Your task to perform on an android device: set the timer Image 0: 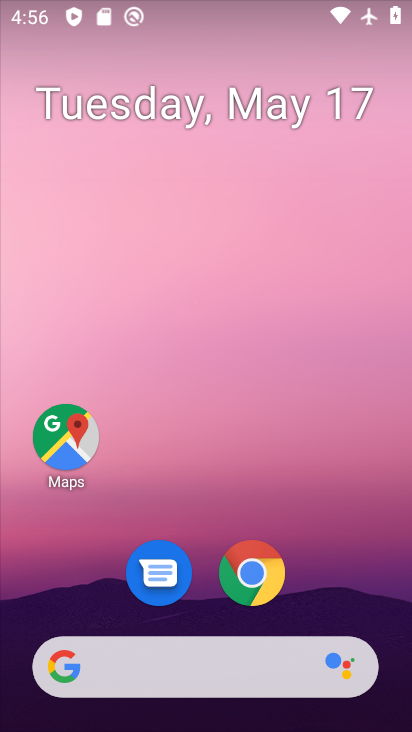
Step 0: drag from (366, 653) to (217, 181)
Your task to perform on an android device: set the timer Image 1: 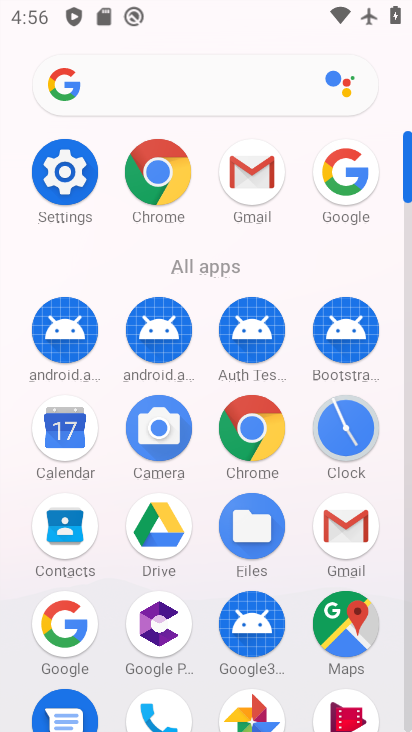
Step 1: click (338, 446)
Your task to perform on an android device: set the timer Image 2: 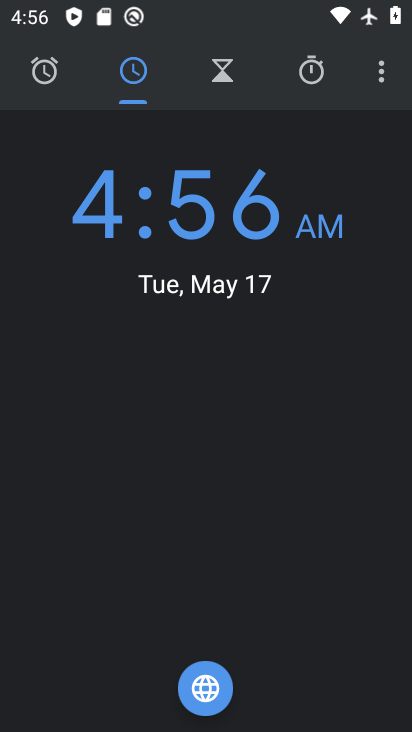
Step 2: click (226, 74)
Your task to perform on an android device: set the timer Image 3: 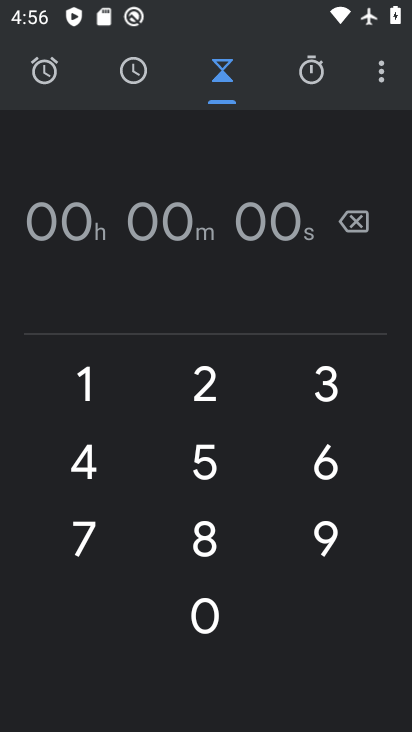
Step 3: click (200, 539)
Your task to perform on an android device: set the timer Image 4: 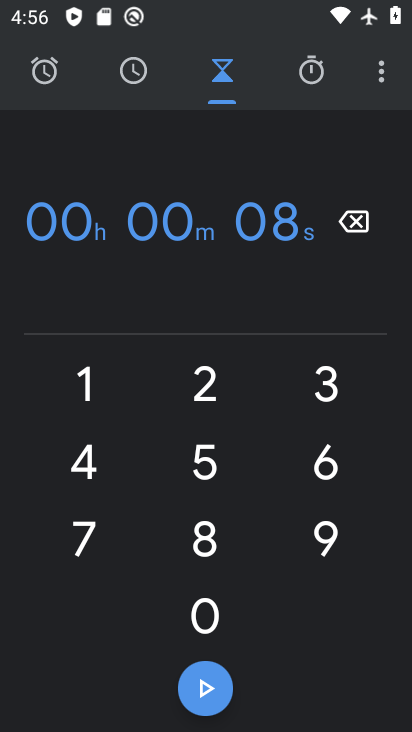
Step 4: click (203, 685)
Your task to perform on an android device: set the timer Image 5: 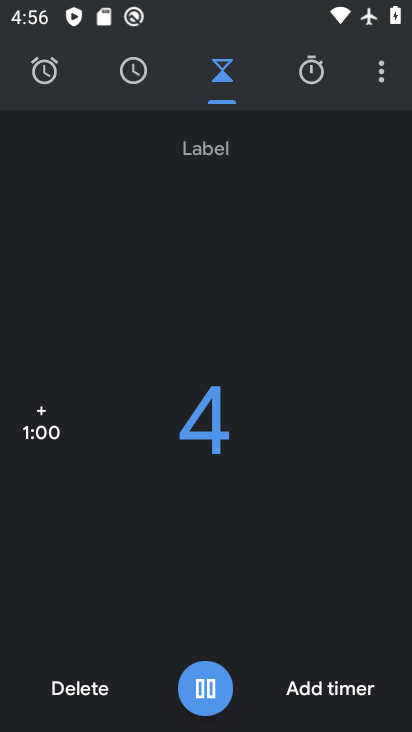
Step 5: click (203, 691)
Your task to perform on an android device: set the timer Image 6: 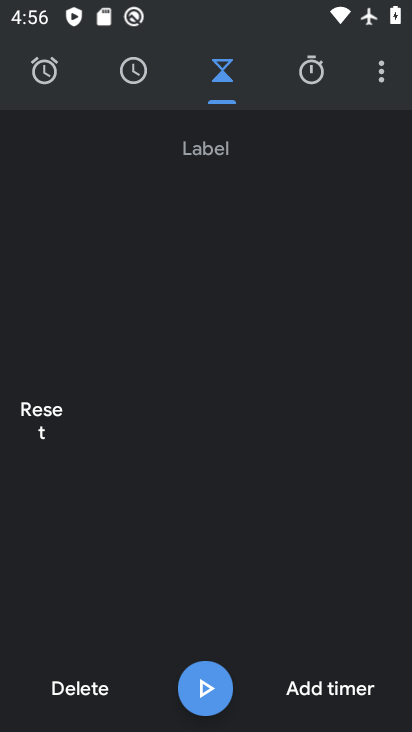
Step 6: click (345, 694)
Your task to perform on an android device: set the timer Image 7: 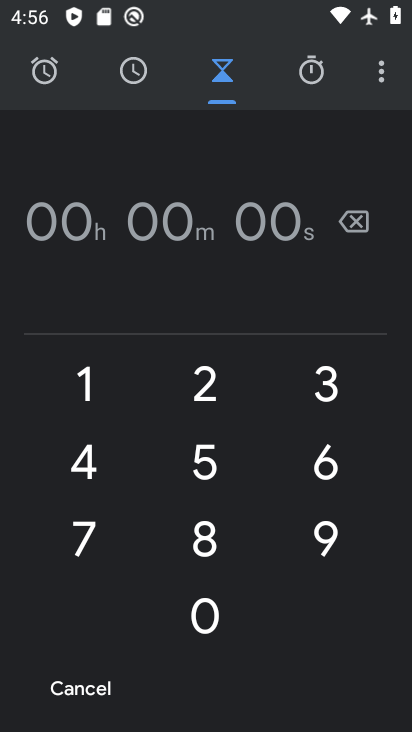
Step 7: task complete